Your task to perform on an android device: install app "Adobe Express: Graphic Design" Image 0: 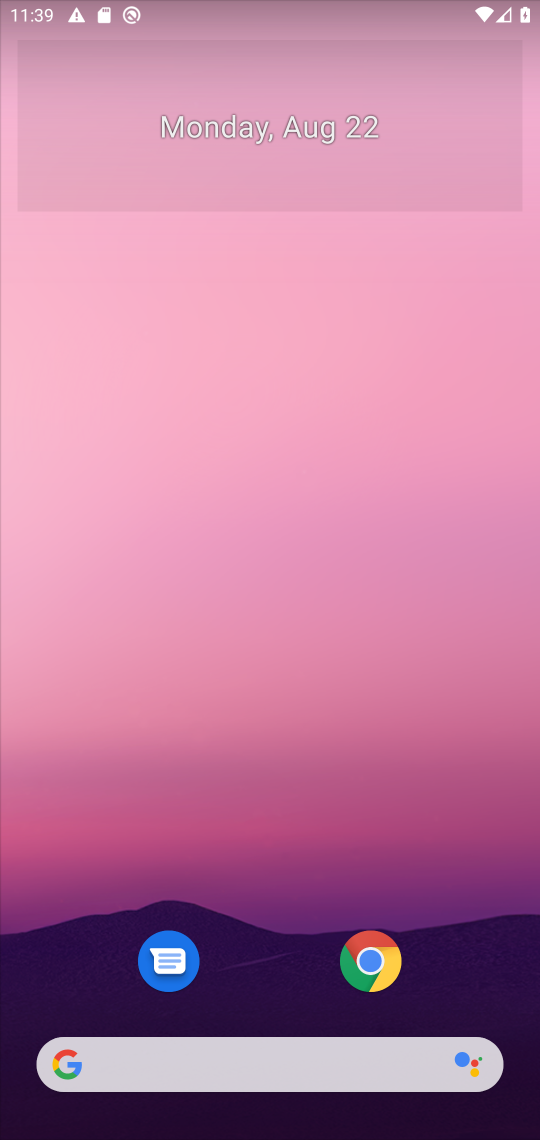
Step 0: press home button
Your task to perform on an android device: install app "Adobe Express: Graphic Design" Image 1: 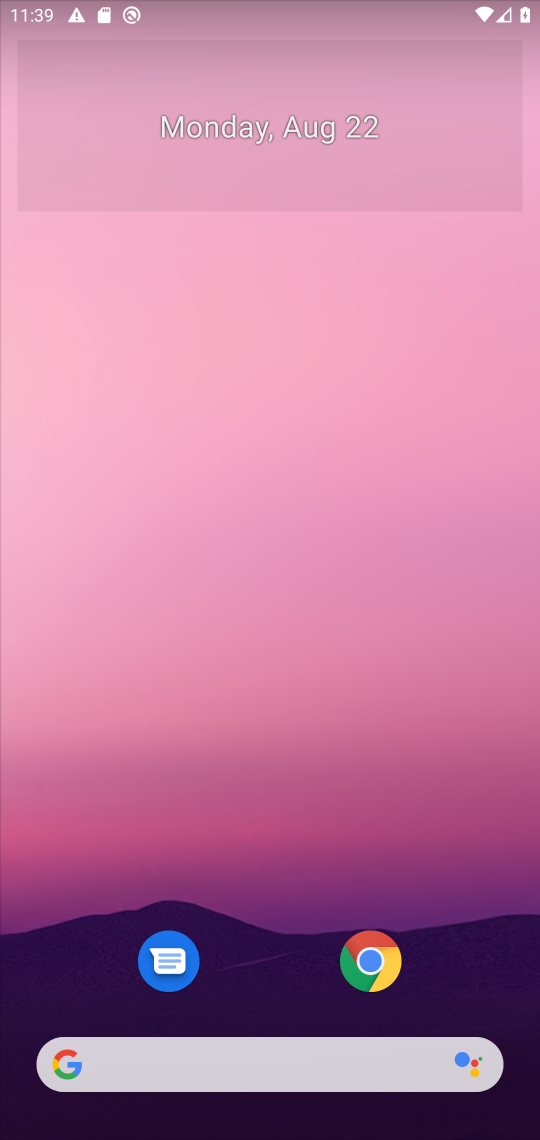
Step 1: drag from (296, 1007) to (355, 214)
Your task to perform on an android device: install app "Adobe Express: Graphic Design" Image 2: 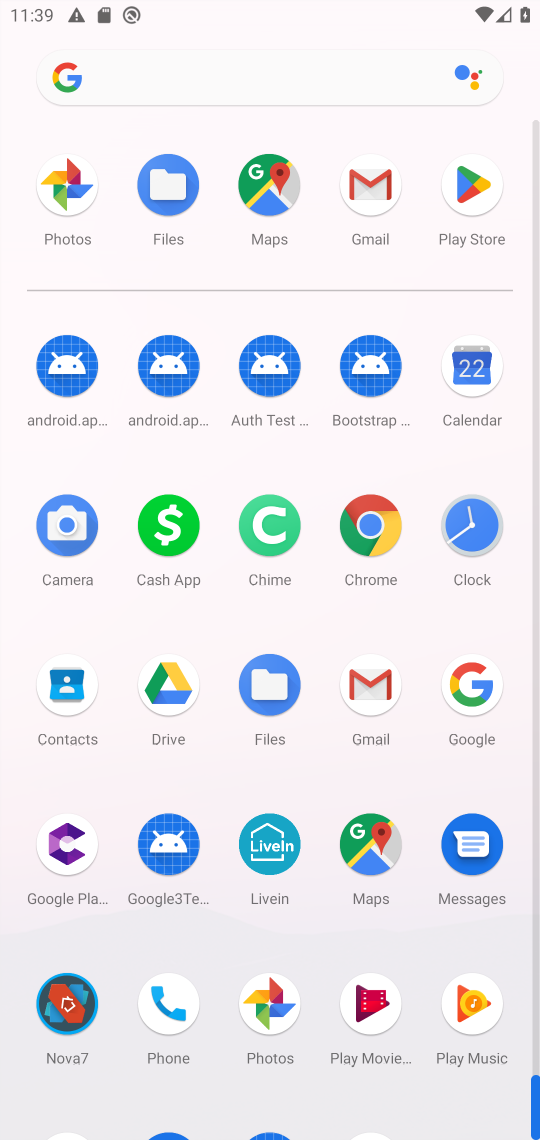
Step 2: click (466, 211)
Your task to perform on an android device: install app "Adobe Express: Graphic Design" Image 3: 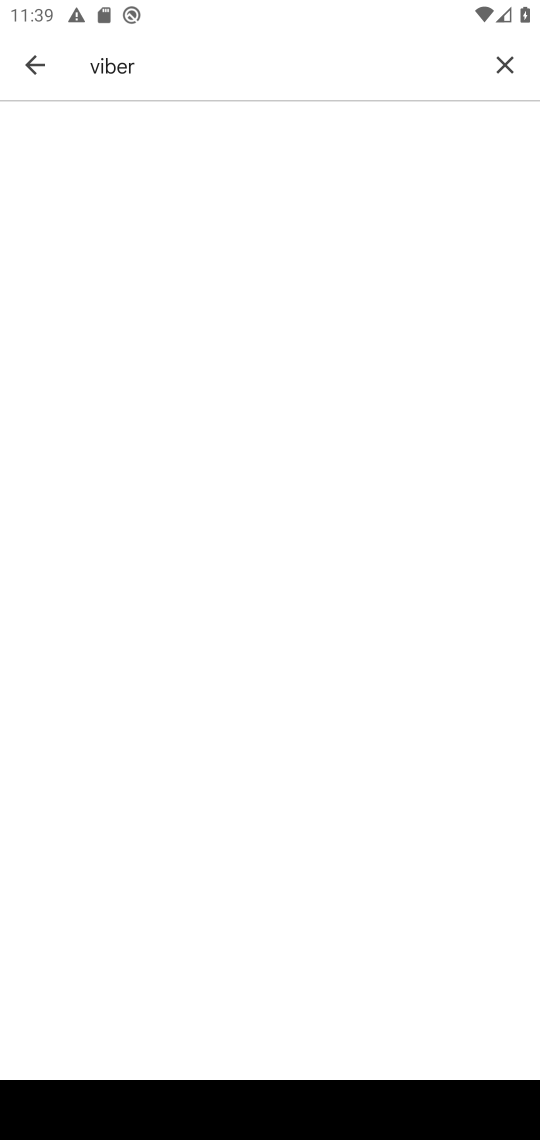
Step 3: click (511, 85)
Your task to perform on an android device: install app "Adobe Express: Graphic Design" Image 4: 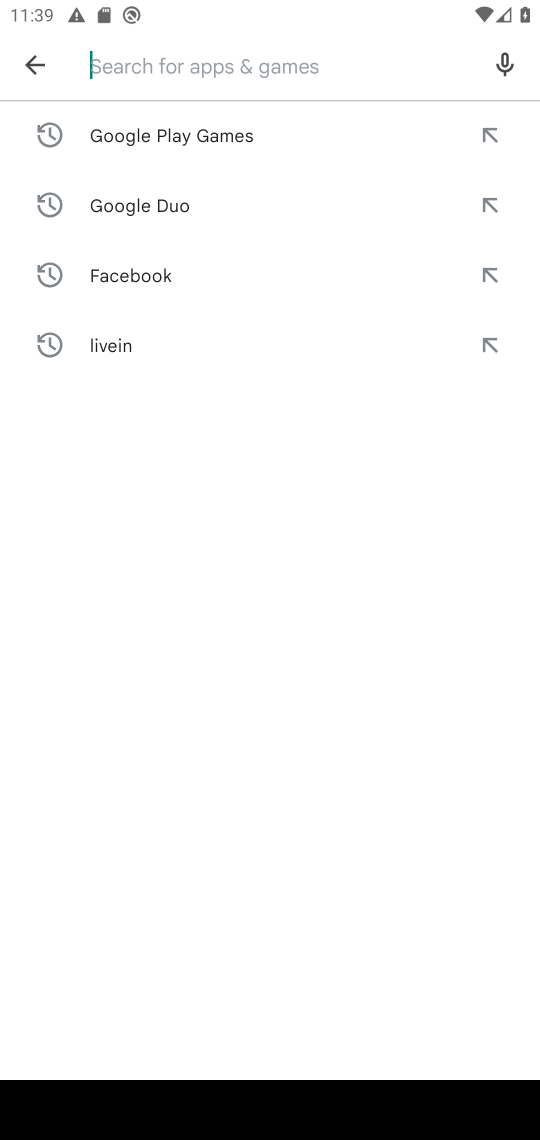
Step 4: type "adobe express"
Your task to perform on an android device: install app "Adobe Express: Graphic Design" Image 5: 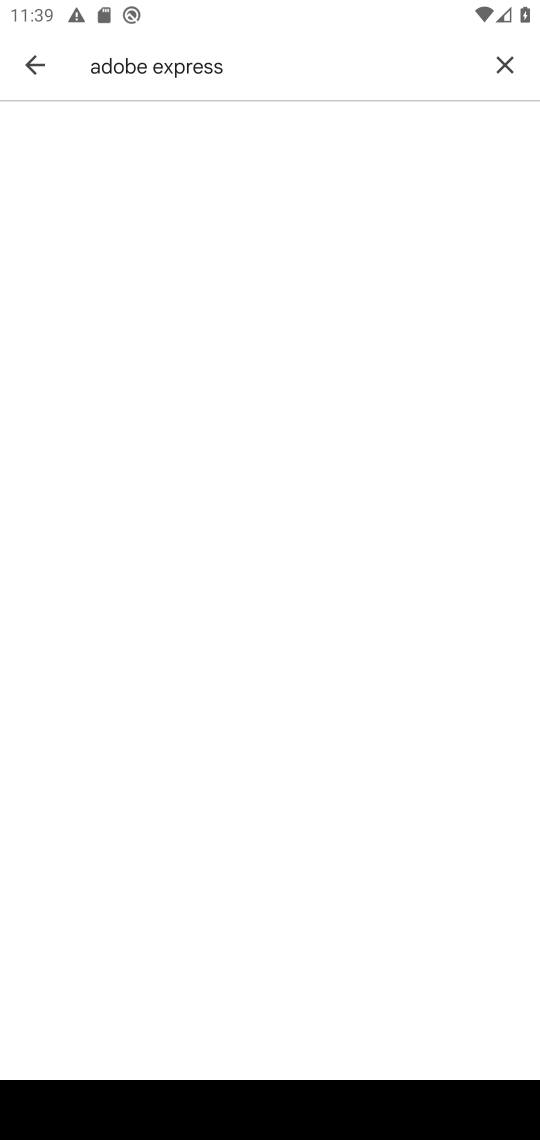
Step 5: task complete